Your task to perform on an android device: install app "Messages" Image 0: 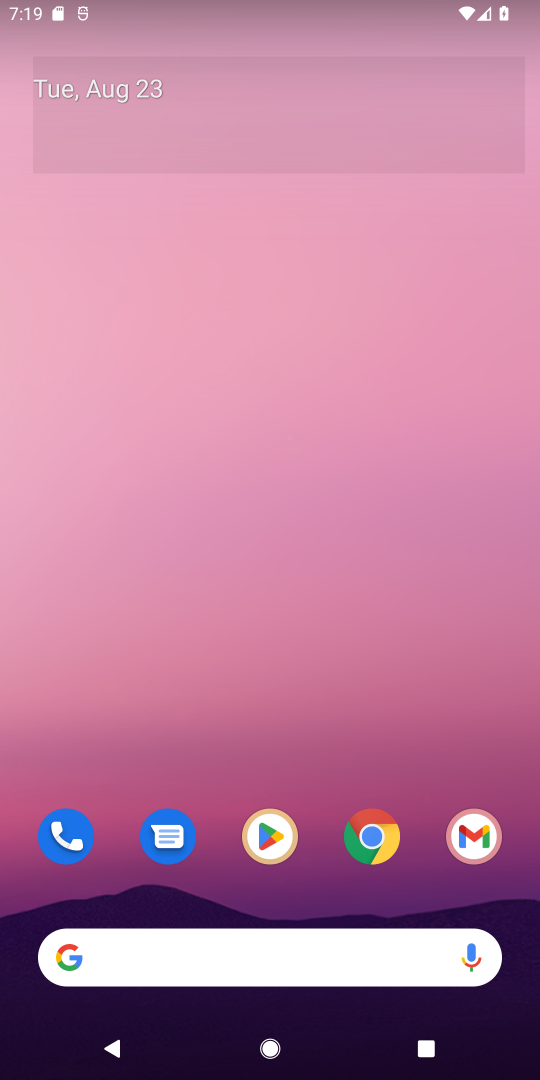
Step 0: press home button
Your task to perform on an android device: install app "Messages" Image 1: 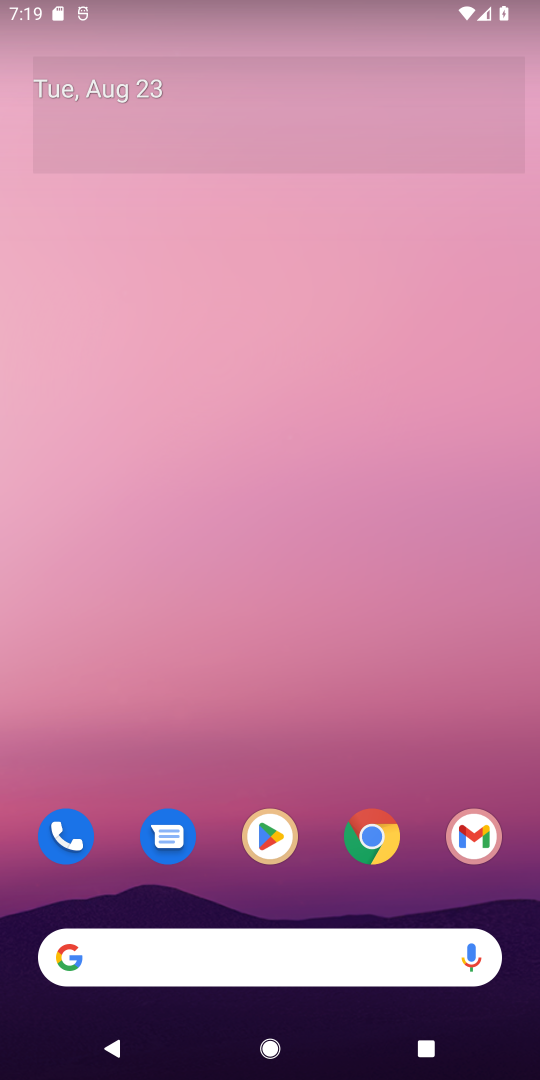
Step 1: click (274, 838)
Your task to perform on an android device: install app "Messages" Image 2: 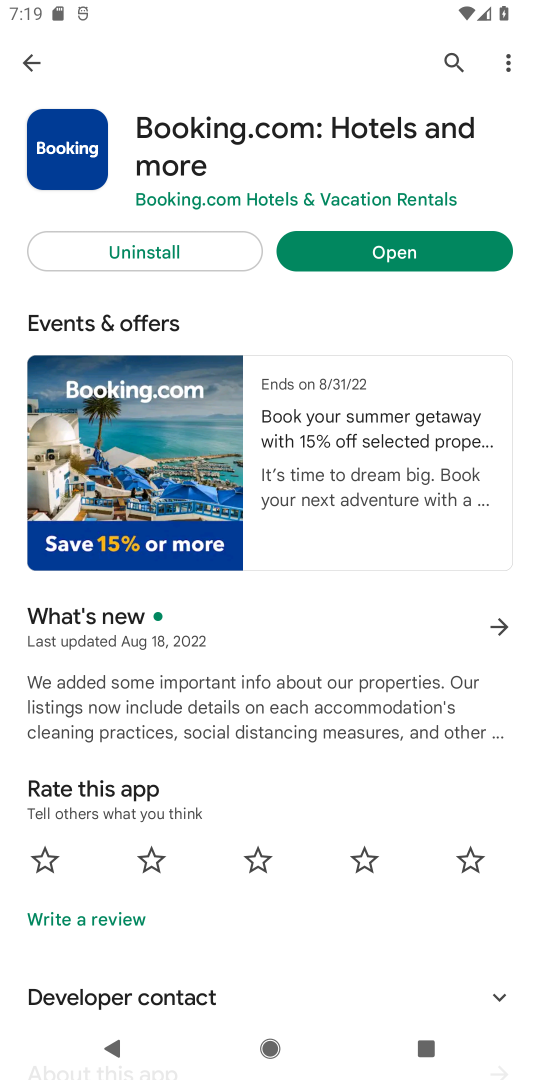
Step 2: click (448, 63)
Your task to perform on an android device: install app "Messages" Image 3: 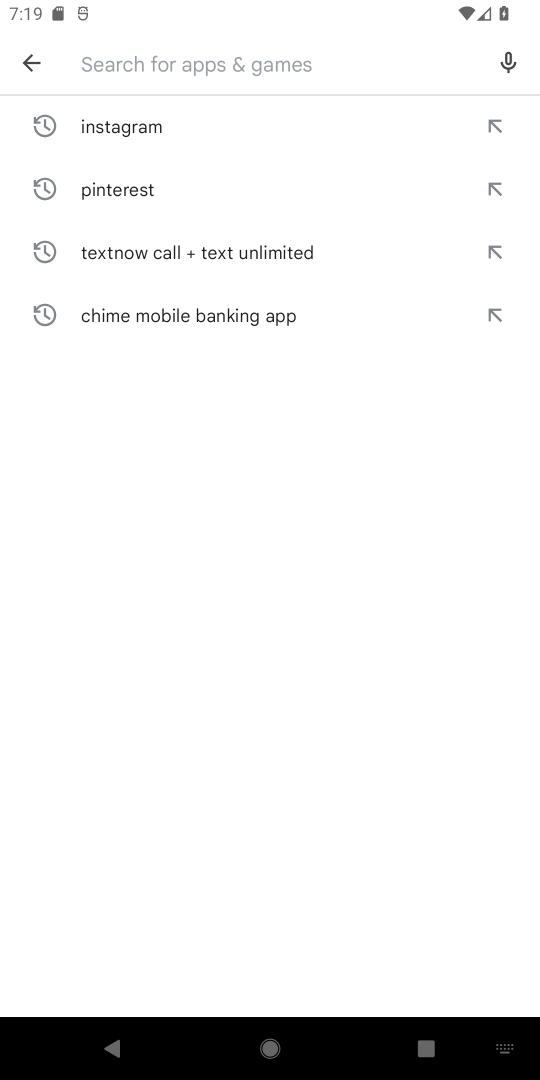
Step 3: type "Messages"
Your task to perform on an android device: install app "Messages" Image 4: 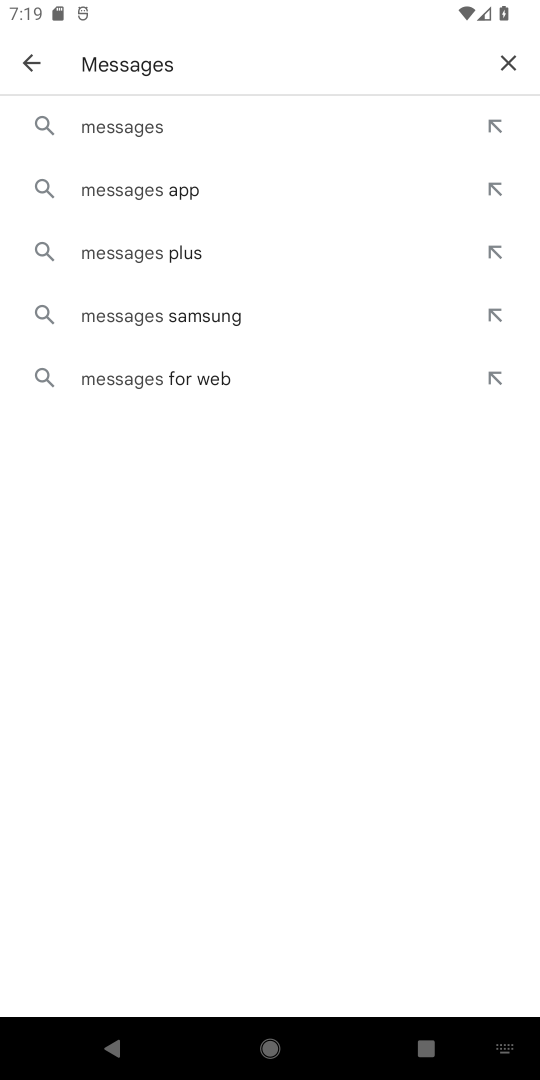
Step 4: click (141, 124)
Your task to perform on an android device: install app "Messages" Image 5: 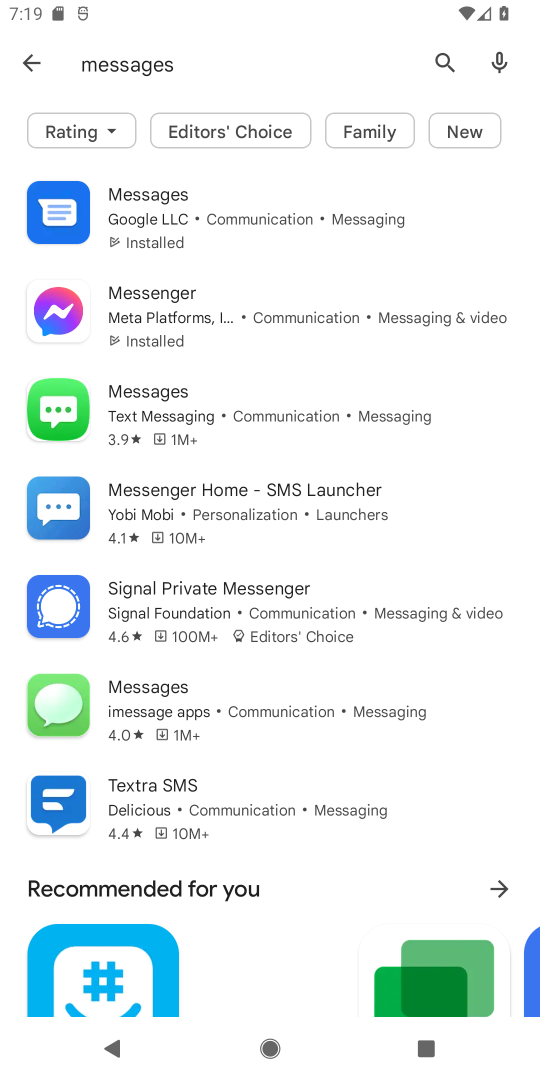
Step 5: click (181, 226)
Your task to perform on an android device: install app "Messages" Image 6: 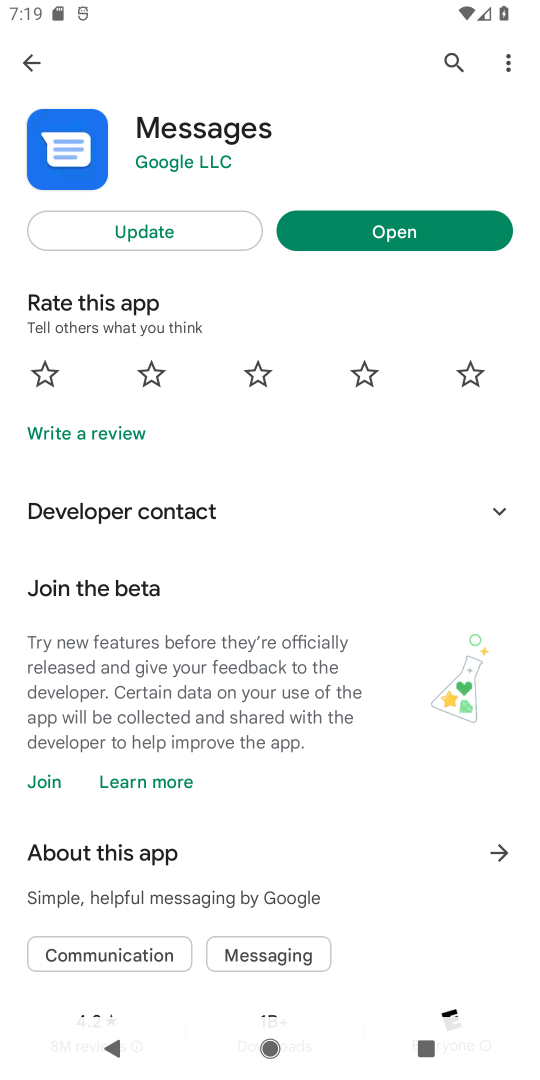
Step 6: task complete